Your task to perform on an android device: turn on priority inbox in the gmail app Image 0: 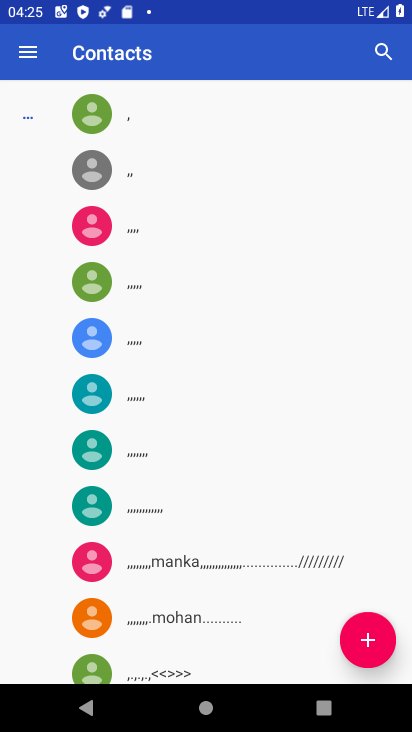
Step 0: press home button
Your task to perform on an android device: turn on priority inbox in the gmail app Image 1: 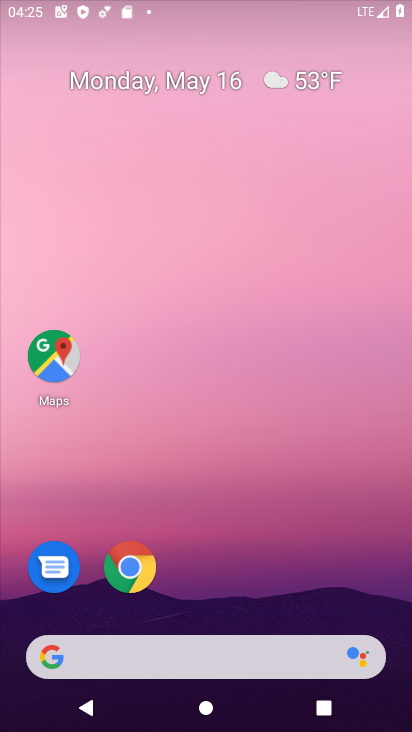
Step 1: drag from (223, 654) to (239, 70)
Your task to perform on an android device: turn on priority inbox in the gmail app Image 2: 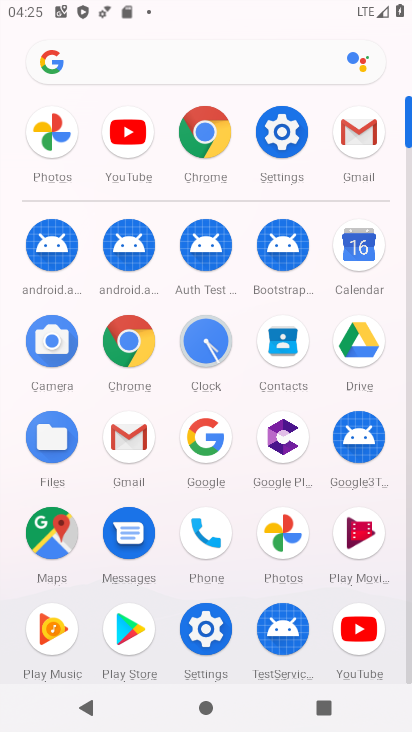
Step 2: click (120, 421)
Your task to perform on an android device: turn on priority inbox in the gmail app Image 3: 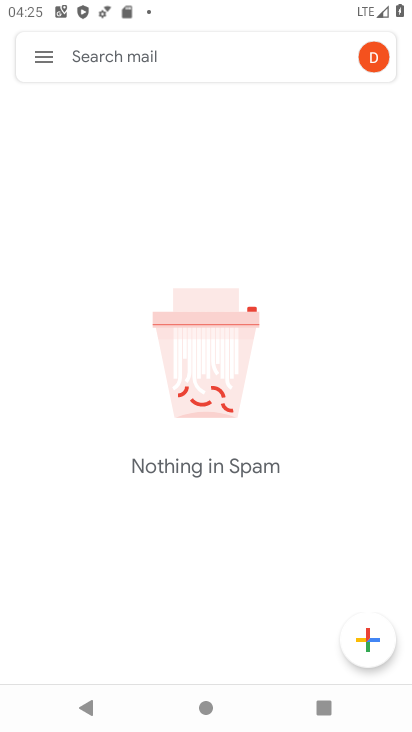
Step 3: click (41, 56)
Your task to perform on an android device: turn on priority inbox in the gmail app Image 4: 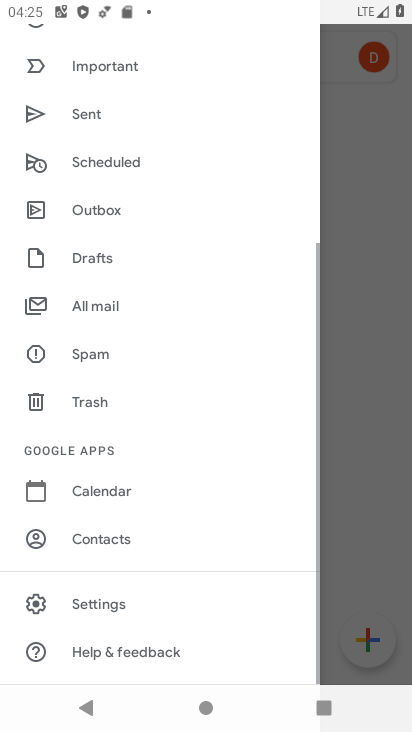
Step 4: drag from (171, 202) to (168, 731)
Your task to perform on an android device: turn on priority inbox in the gmail app Image 5: 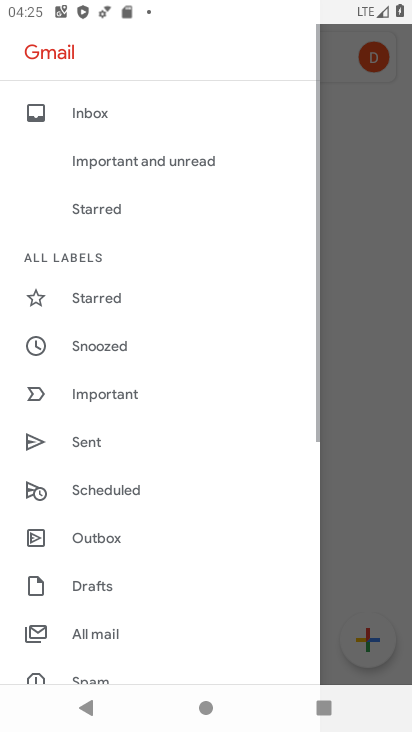
Step 5: drag from (106, 602) to (69, 121)
Your task to perform on an android device: turn on priority inbox in the gmail app Image 6: 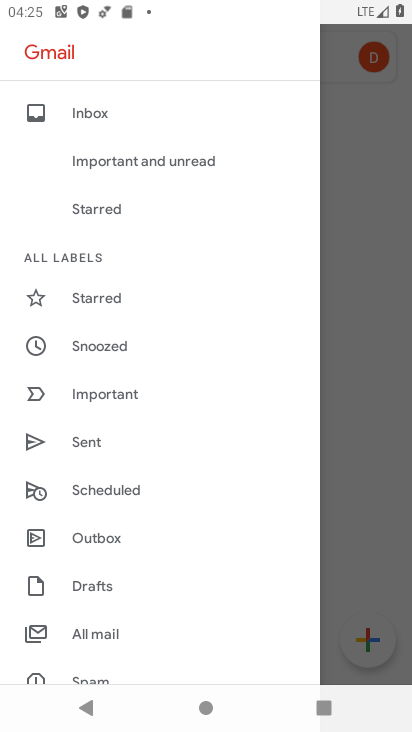
Step 6: drag from (129, 600) to (193, 80)
Your task to perform on an android device: turn on priority inbox in the gmail app Image 7: 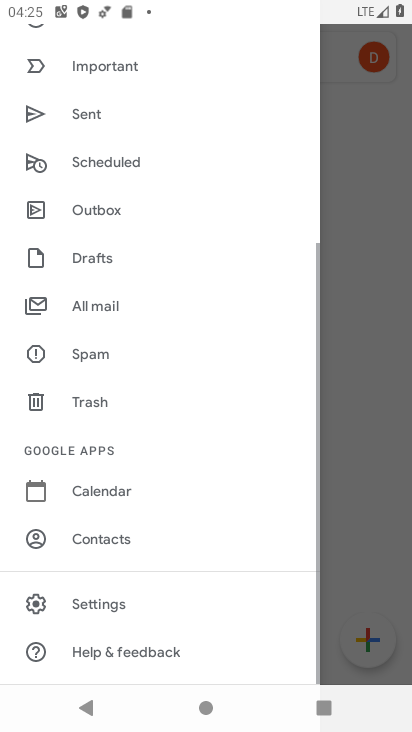
Step 7: click (132, 607)
Your task to perform on an android device: turn on priority inbox in the gmail app Image 8: 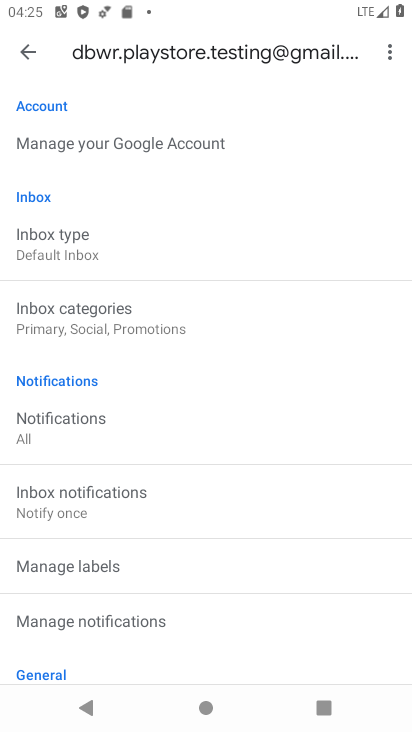
Step 8: click (90, 251)
Your task to perform on an android device: turn on priority inbox in the gmail app Image 9: 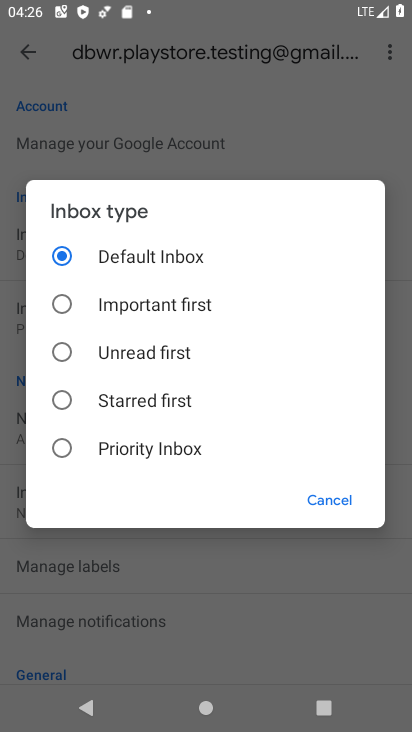
Step 9: click (157, 442)
Your task to perform on an android device: turn on priority inbox in the gmail app Image 10: 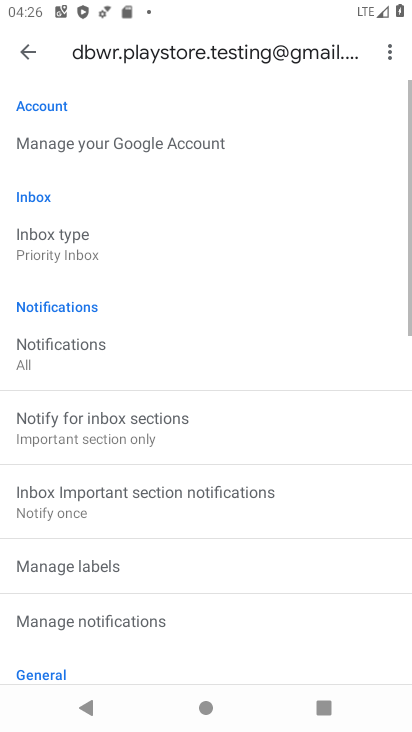
Step 10: task complete